Your task to perform on an android device: turn off wifi Image 0: 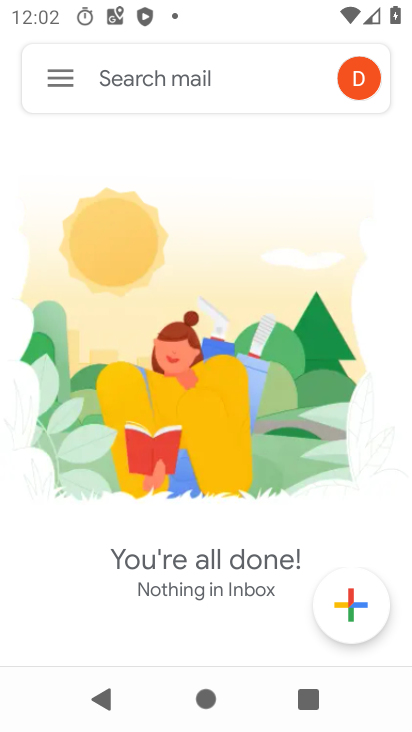
Step 0: press home button
Your task to perform on an android device: turn off wifi Image 1: 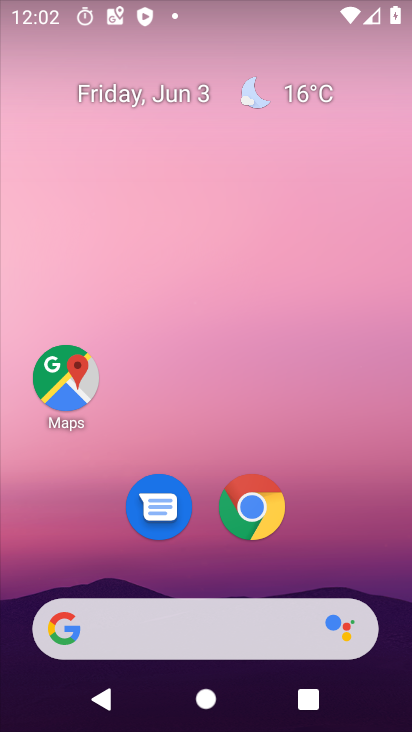
Step 1: drag from (401, 648) to (304, 119)
Your task to perform on an android device: turn off wifi Image 2: 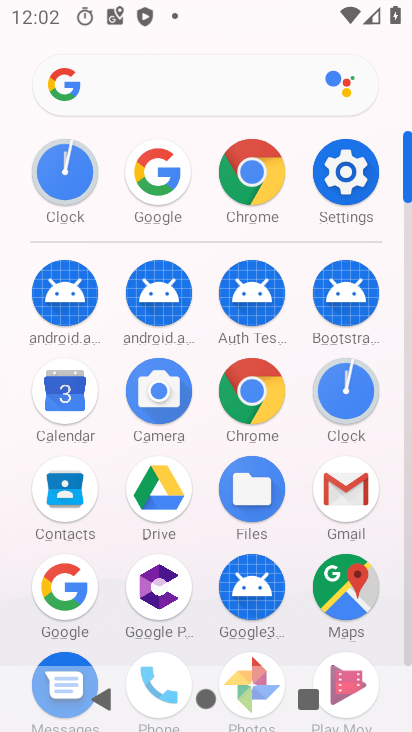
Step 2: drag from (209, 5) to (203, 424)
Your task to perform on an android device: turn off wifi Image 3: 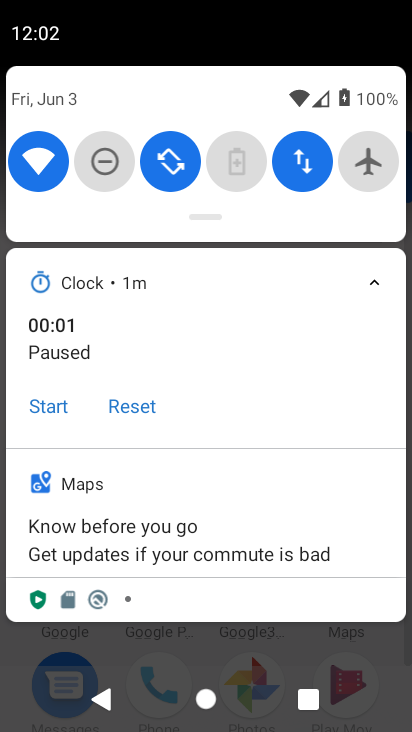
Step 3: click (39, 182)
Your task to perform on an android device: turn off wifi Image 4: 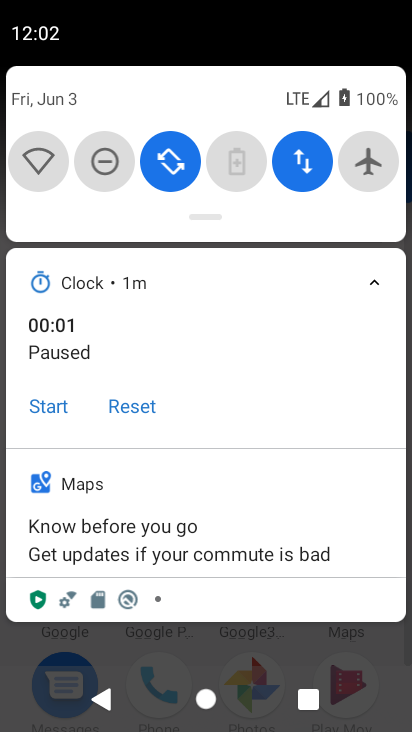
Step 4: task complete